Your task to perform on an android device: Check the news Image 0: 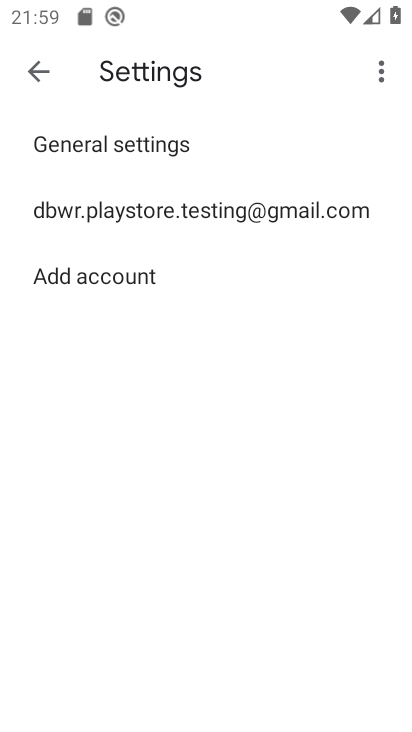
Step 0: press home button
Your task to perform on an android device: Check the news Image 1: 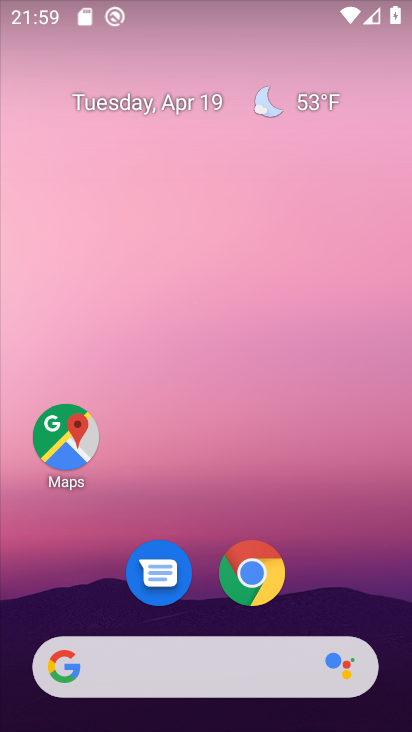
Step 1: task complete